Your task to perform on an android device: Open Wikipedia Image 0: 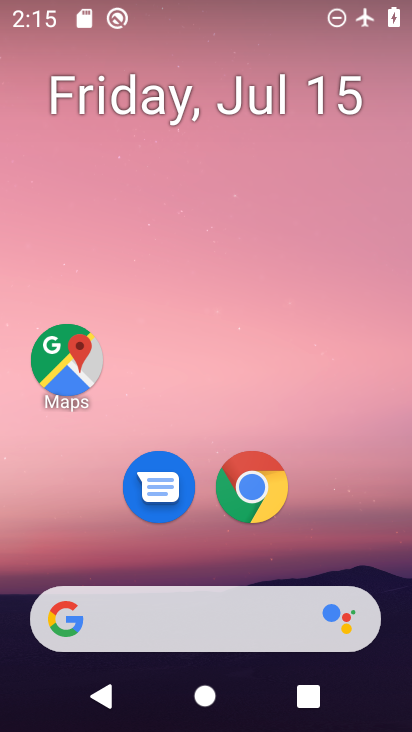
Step 0: drag from (159, 694) to (174, 201)
Your task to perform on an android device: Open Wikipedia Image 1: 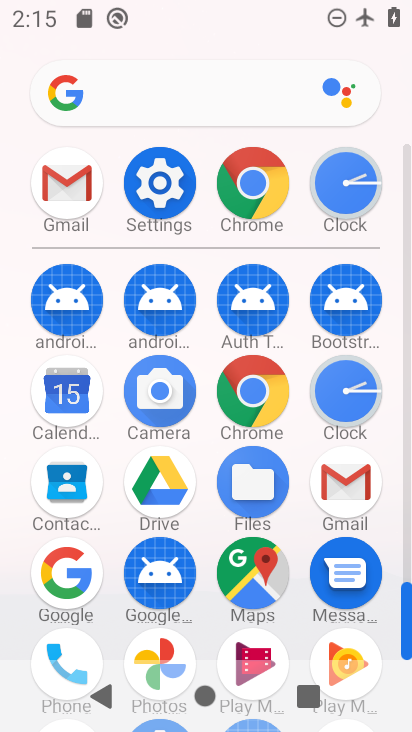
Step 1: click (248, 213)
Your task to perform on an android device: Open Wikipedia Image 2: 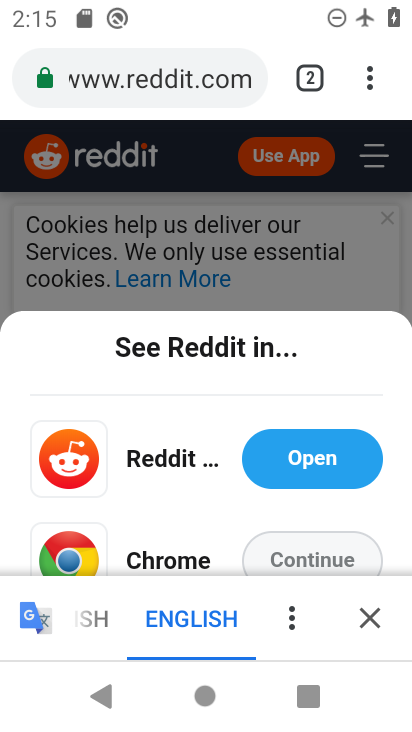
Step 2: click (200, 90)
Your task to perform on an android device: Open Wikipedia Image 3: 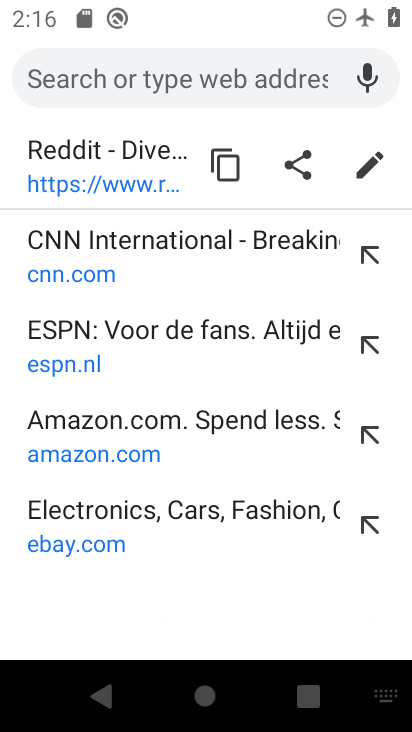
Step 3: type "wikipedia"
Your task to perform on an android device: Open Wikipedia Image 4: 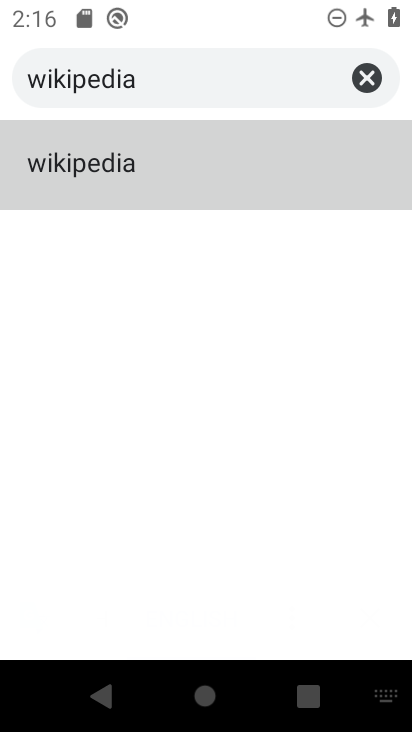
Step 4: click (248, 163)
Your task to perform on an android device: Open Wikipedia Image 5: 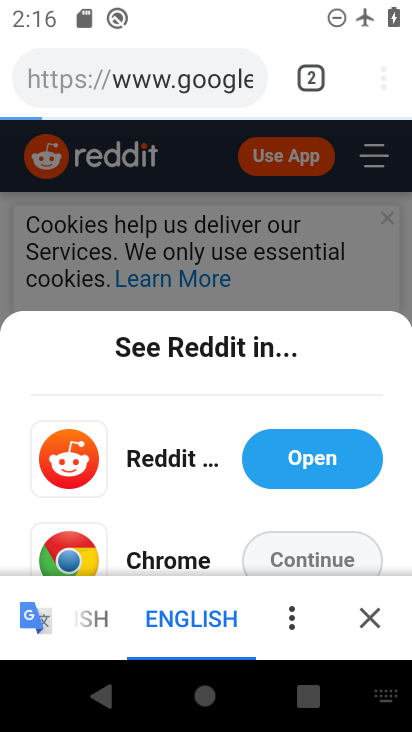
Step 5: click (248, 163)
Your task to perform on an android device: Open Wikipedia Image 6: 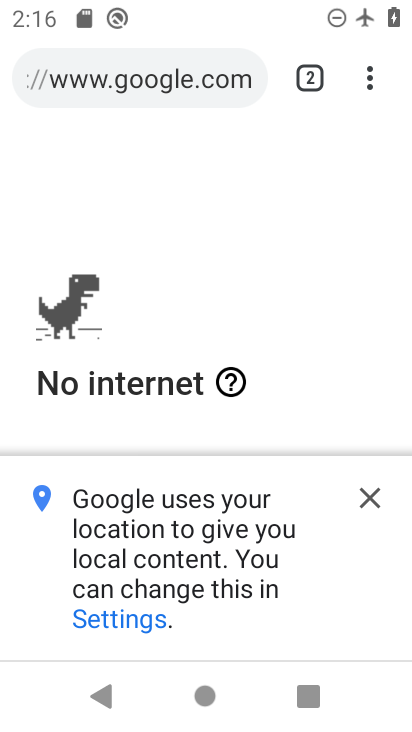
Step 6: task complete